Your task to perform on an android device: open app "Google Drive" (install if not already installed) Image 0: 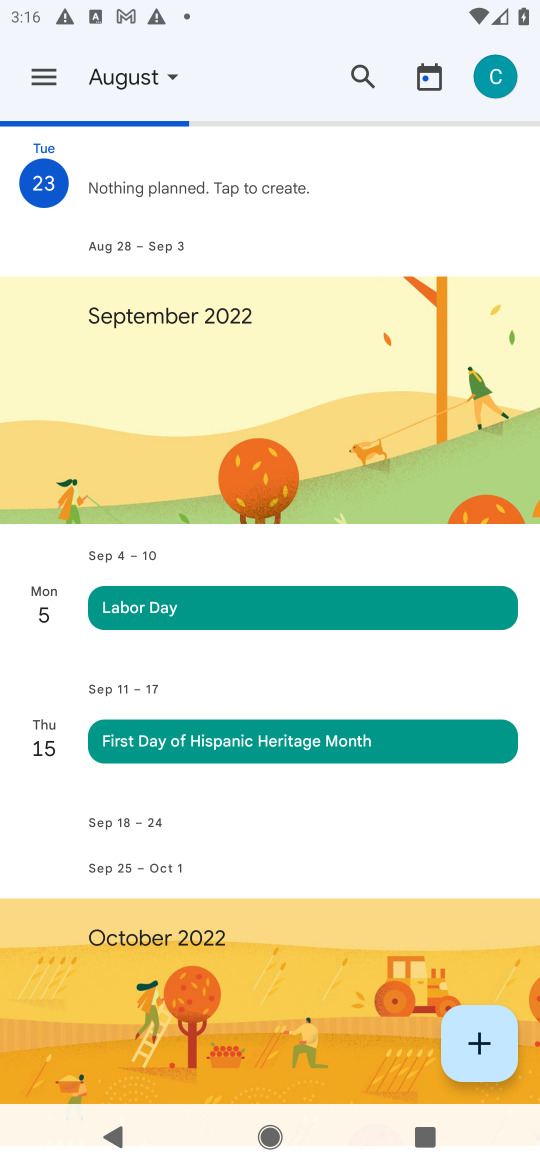
Step 0: press home button
Your task to perform on an android device: open app "Google Drive" (install if not already installed) Image 1: 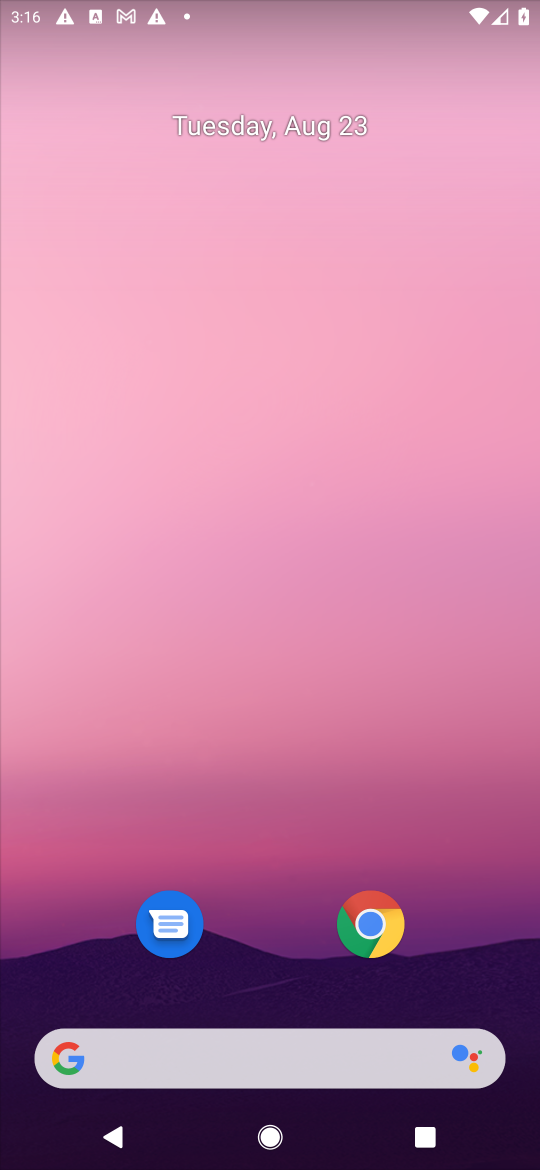
Step 1: drag from (489, 970) to (445, 152)
Your task to perform on an android device: open app "Google Drive" (install if not already installed) Image 2: 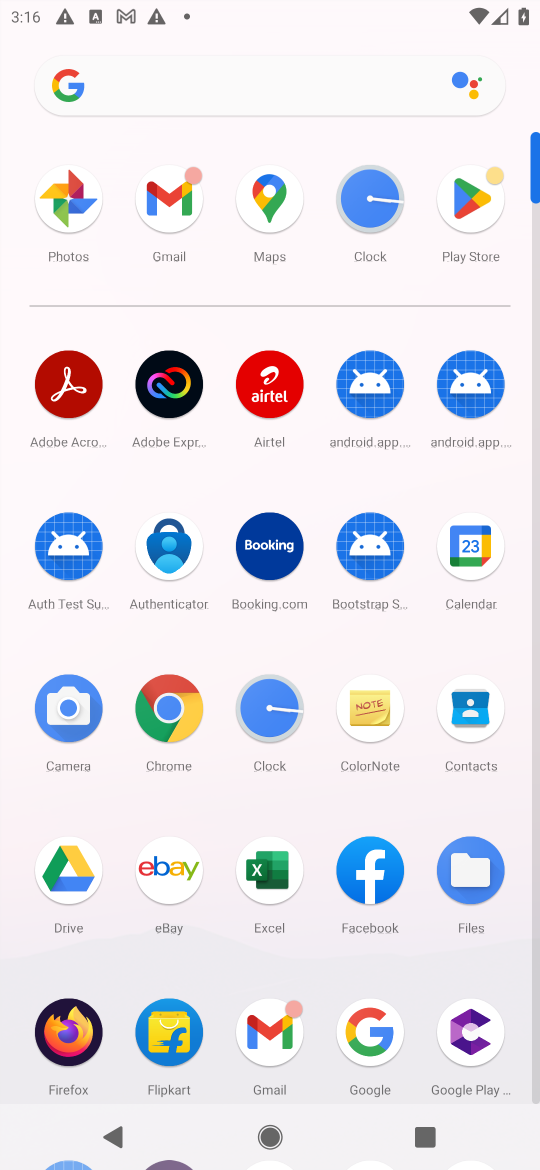
Step 2: click (467, 195)
Your task to perform on an android device: open app "Google Drive" (install if not already installed) Image 3: 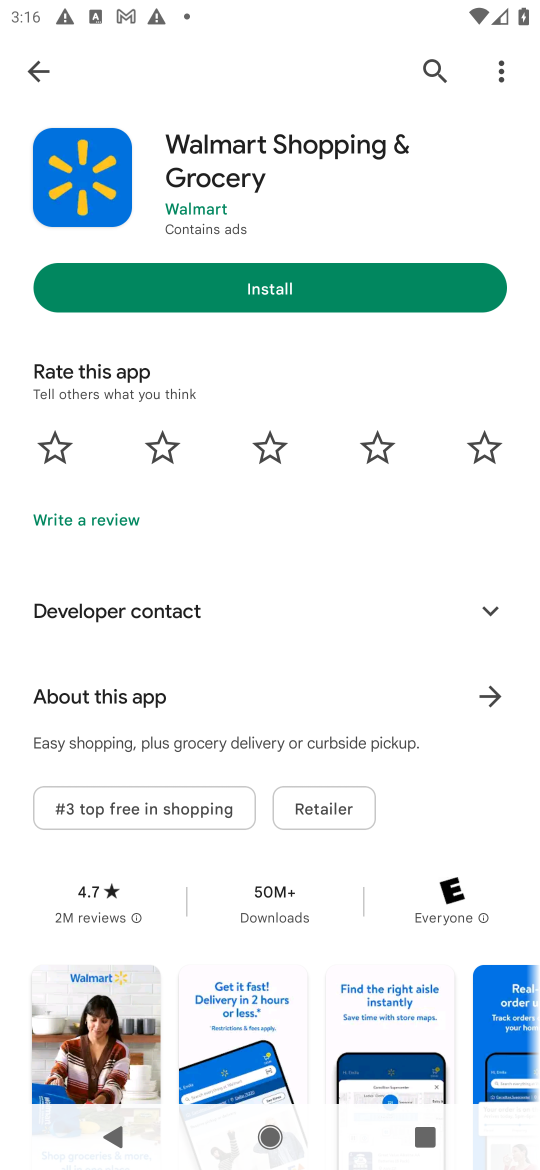
Step 3: press back button
Your task to perform on an android device: open app "Google Drive" (install if not already installed) Image 4: 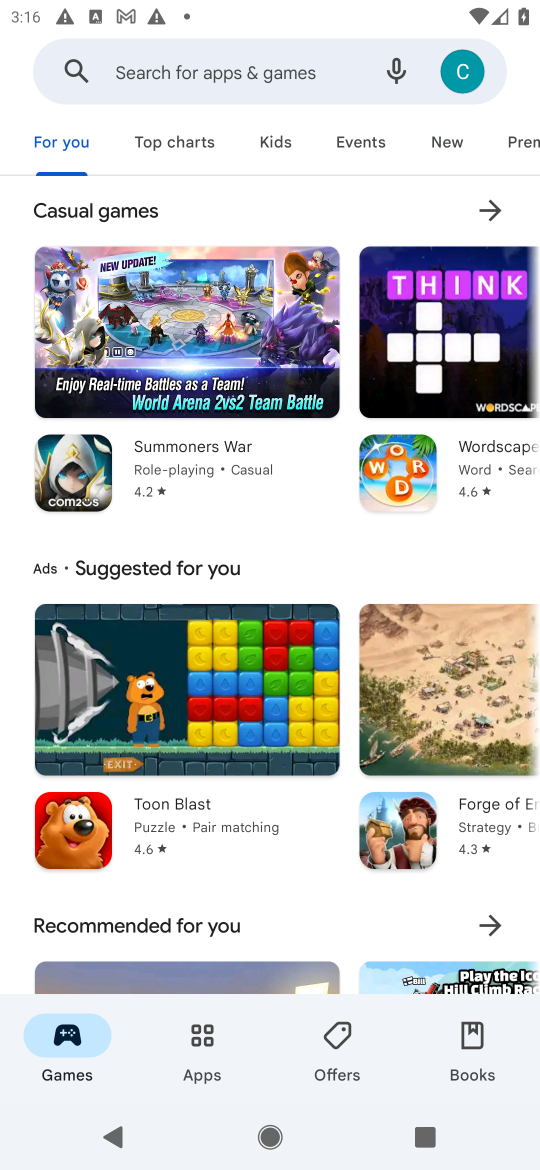
Step 4: click (255, 67)
Your task to perform on an android device: open app "Google Drive" (install if not already installed) Image 5: 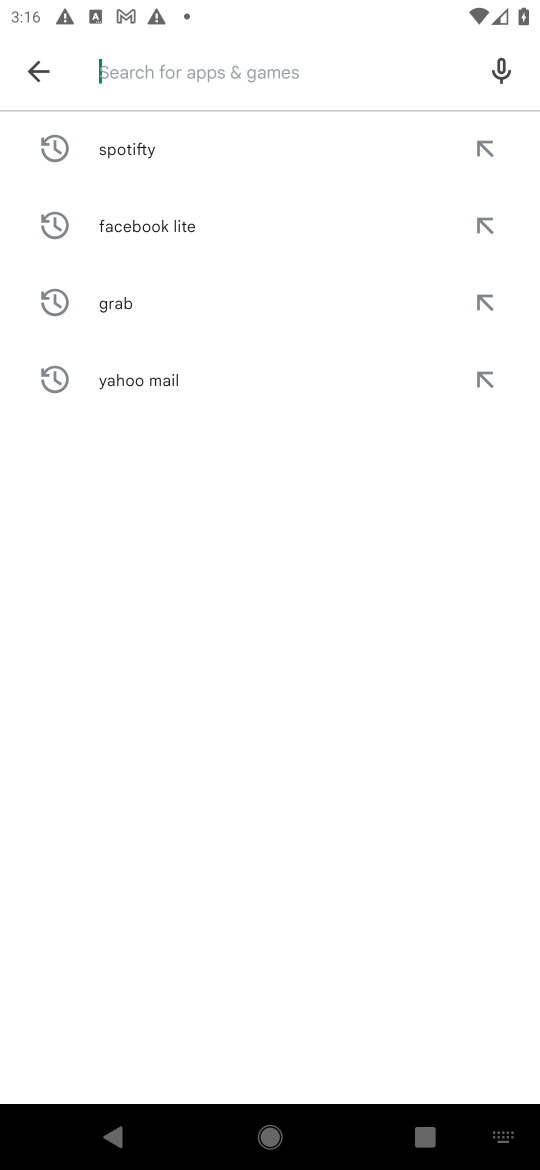
Step 5: press enter
Your task to perform on an android device: open app "Google Drive" (install if not already installed) Image 6: 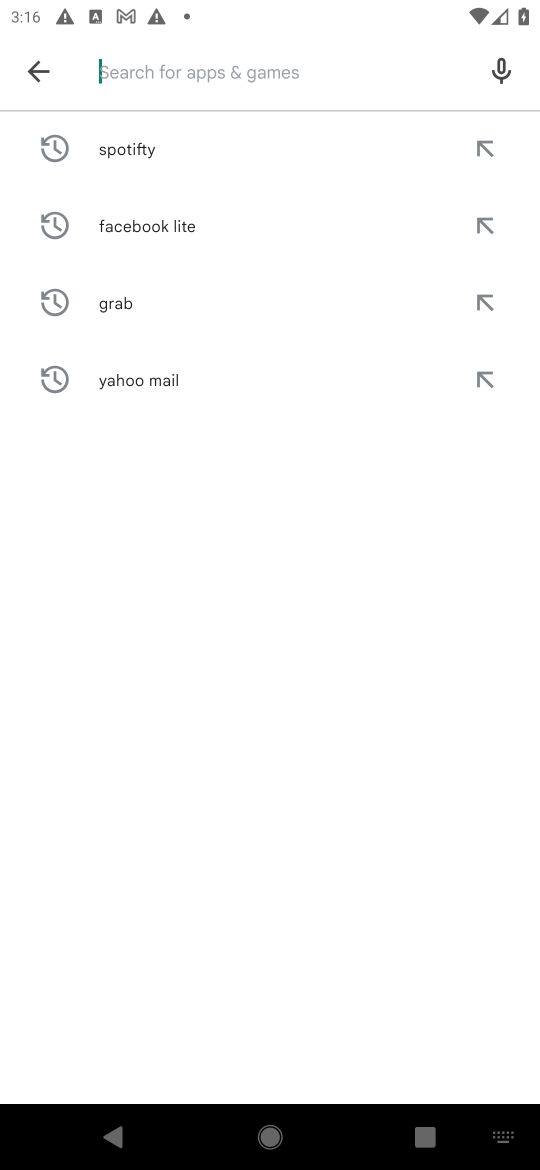
Step 6: type "google drive"
Your task to perform on an android device: open app "Google Drive" (install if not already installed) Image 7: 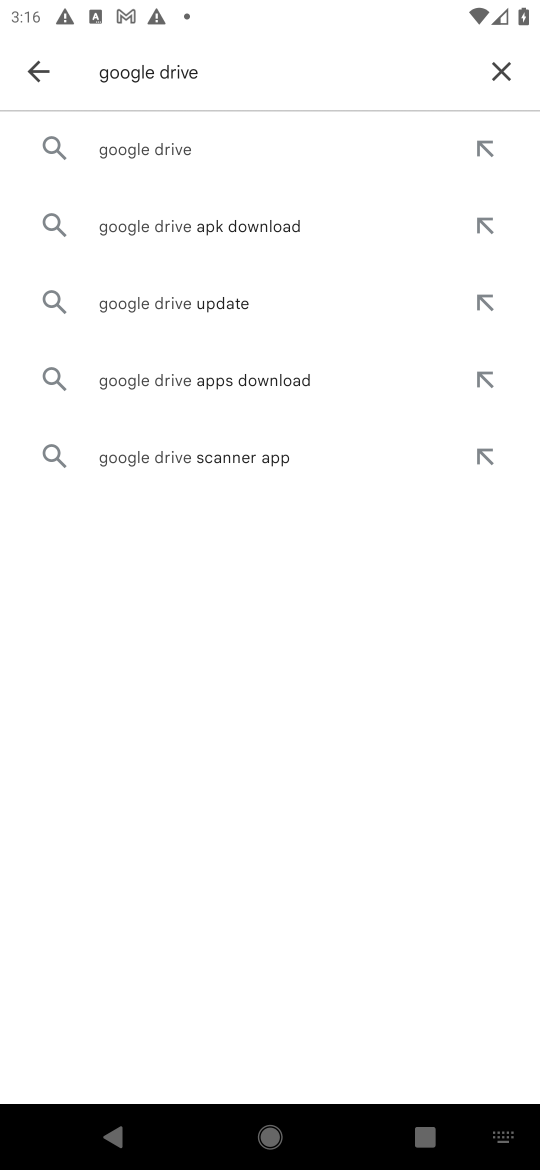
Step 7: click (171, 153)
Your task to perform on an android device: open app "Google Drive" (install if not already installed) Image 8: 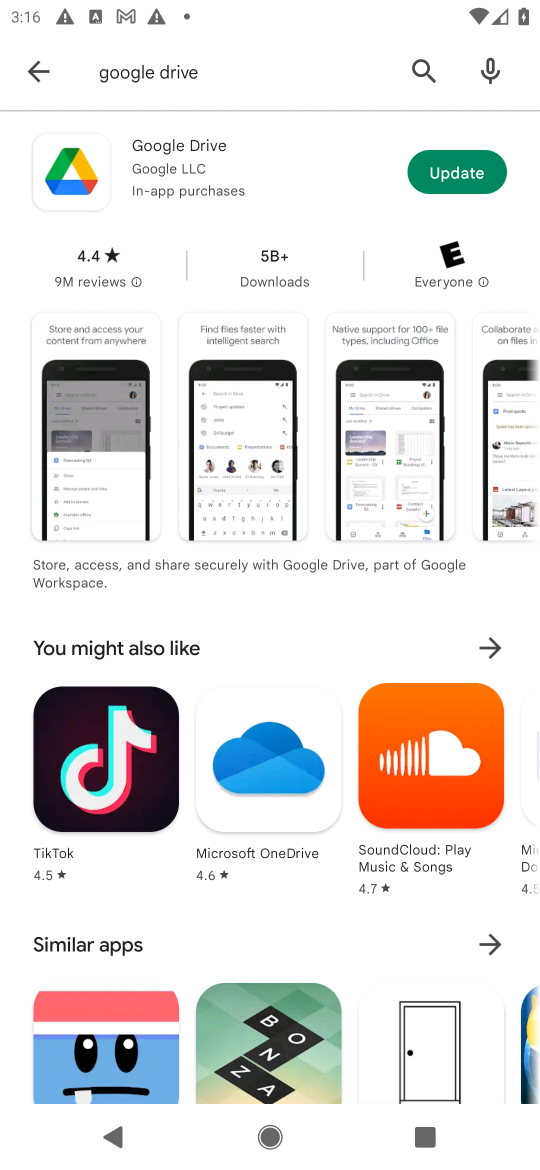
Step 8: click (457, 170)
Your task to perform on an android device: open app "Google Drive" (install if not already installed) Image 9: 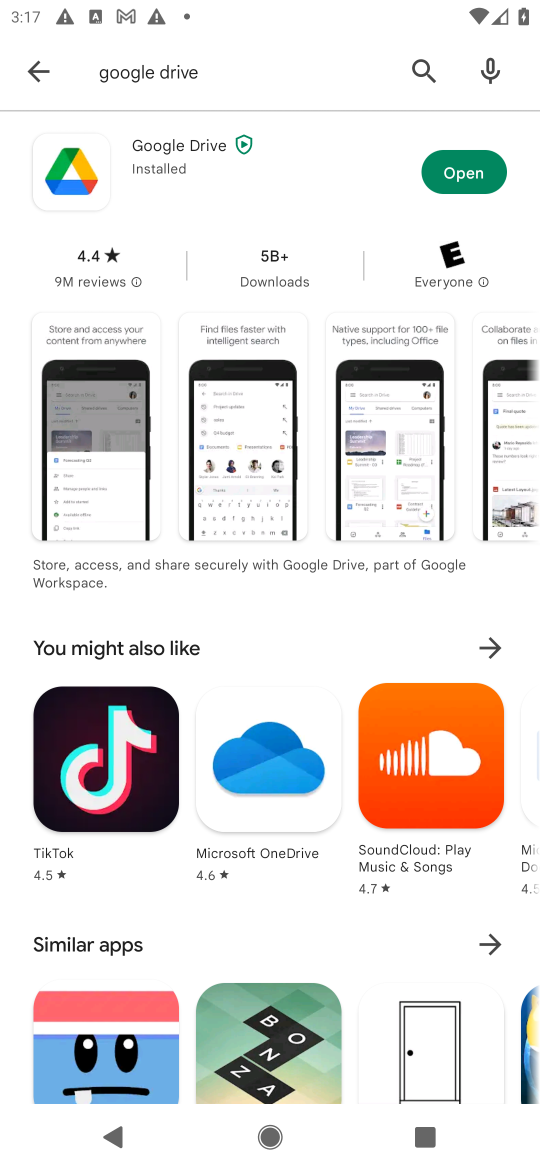
Step 9: click (476, 165)
Your task to perform on an android device: open app "Google Drive" (install if not already installed) Image 10: 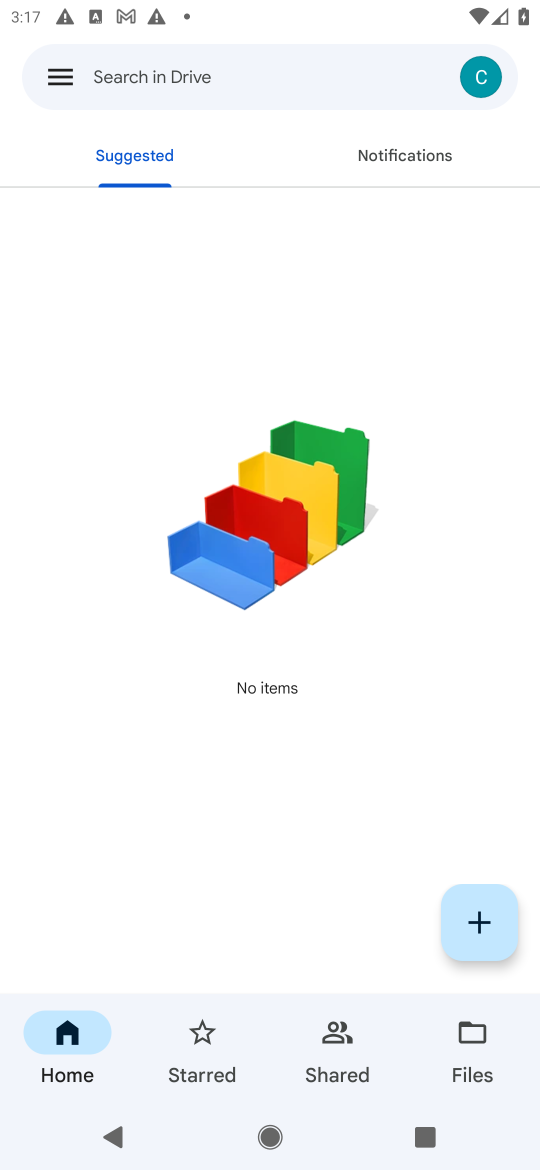
Step 10: task complete